Your task to perform on an android device: Go to Maps Image 0: 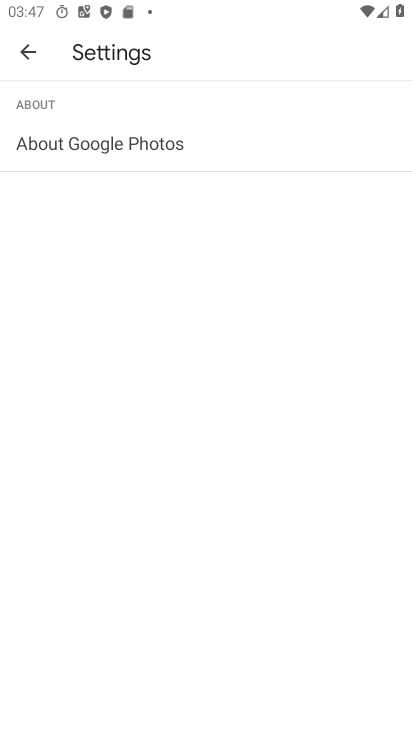
Step 0: press home button
Your task to perform on an android device: Go to Maps Image 1: 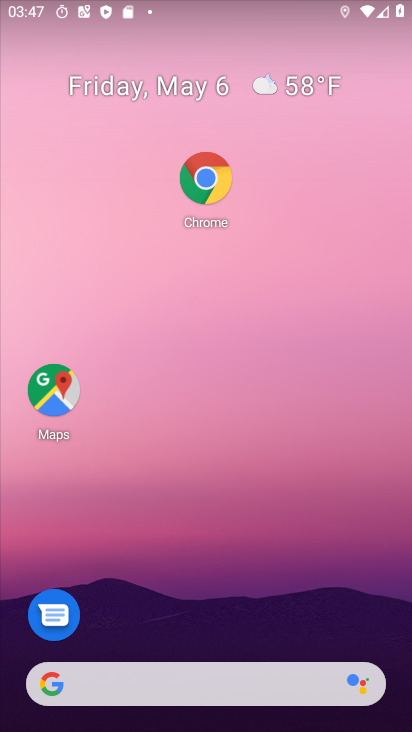
Step 1: drag from (348, 660) to (172, 193)
Your task to perform on an android device: Go to Maps Image 2: 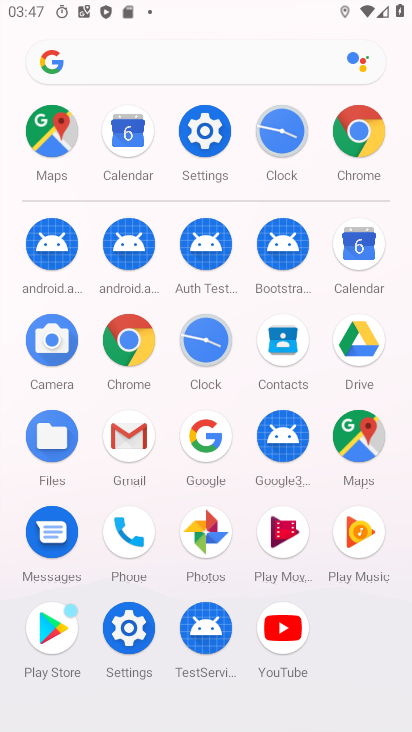
Step 2: click (47, 141)
Your task to perform on an android device: Go to Maps Image 3: 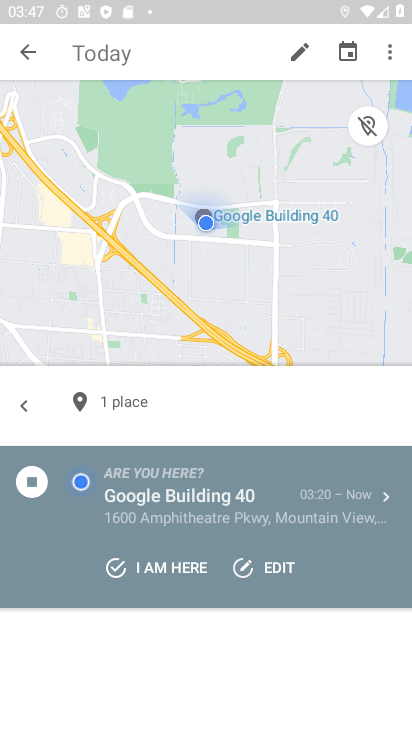
Step 3: task complete